Your task to perform on an android device: set the timer Image 0: 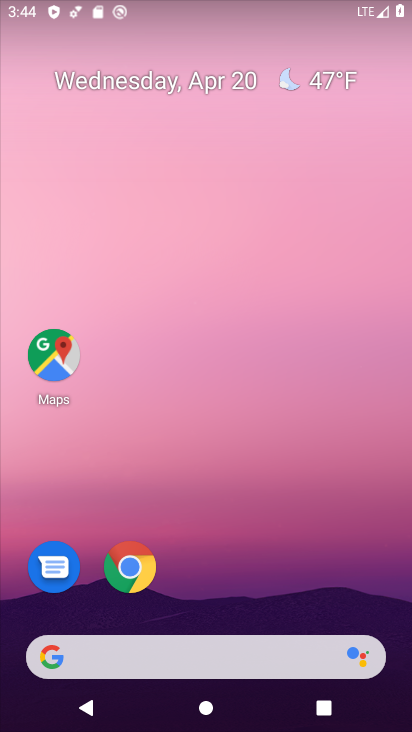
Step 0: click (240, 80)
Your task to perform on an android device: set the timer Image 1: 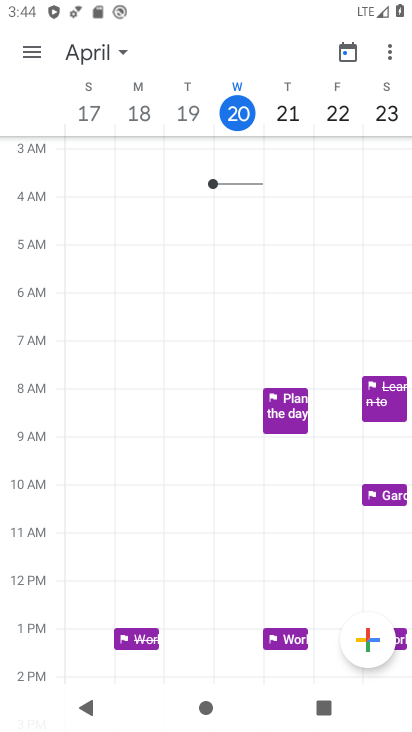
Step 1: press back button
Your task to perform on an android device: set the timer Image 2: 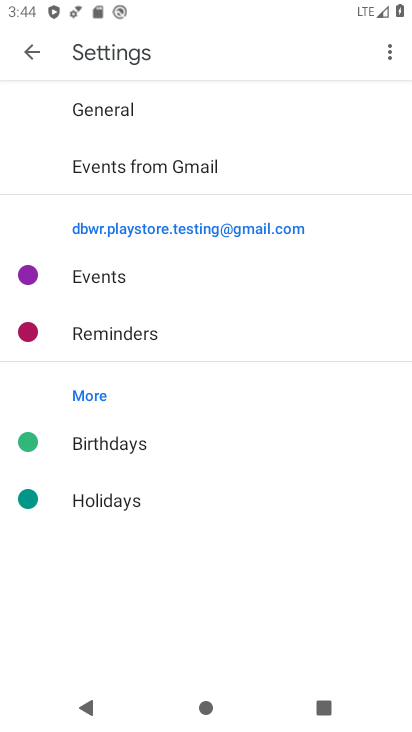
Step 2: press back button
Your task to perform on an android device: set the timer Image 3: 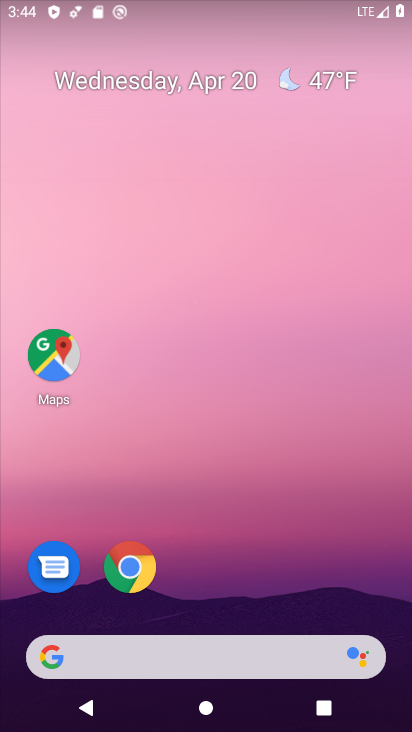
Step 3: drag from (363, 546) to (381, 481)
Your task to perform on an android device: set the timer Image 4: 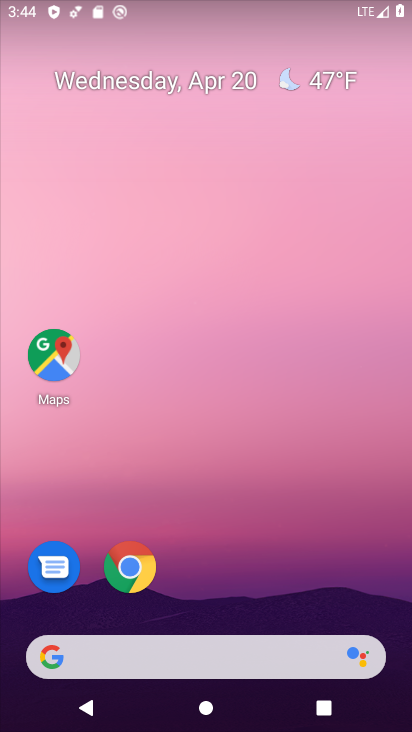
Step 4: drag from (306, 570) to (257, 30)
Your task to perform on an android device: set the timer Image 5: 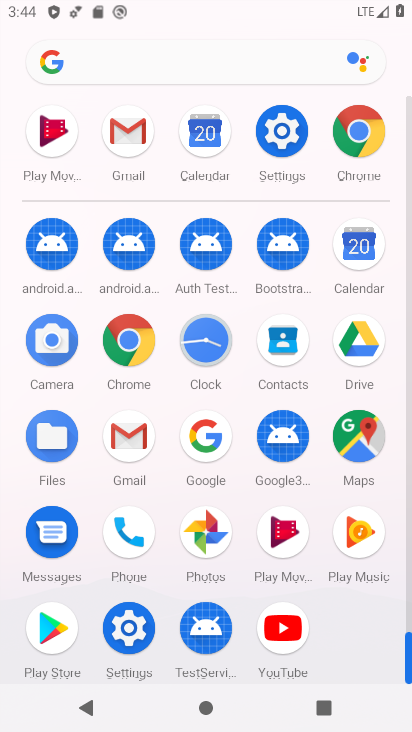
Step 5: click (206, 338)
Your task to perform on an android device: set the timer Image 6: 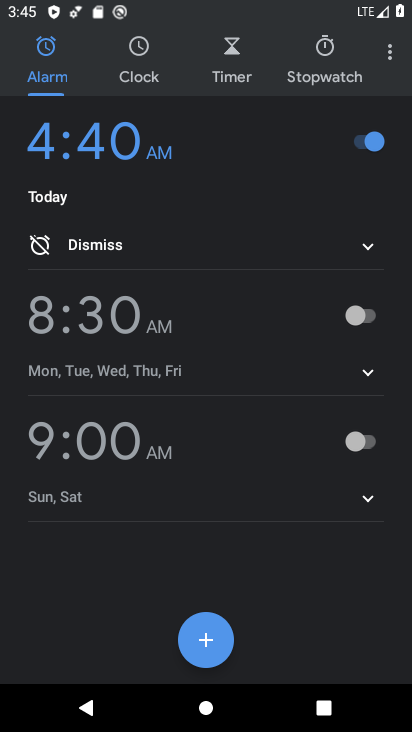
Step 6: click (240, 46)
Your task to perform on an android device: set the timer Image 7: 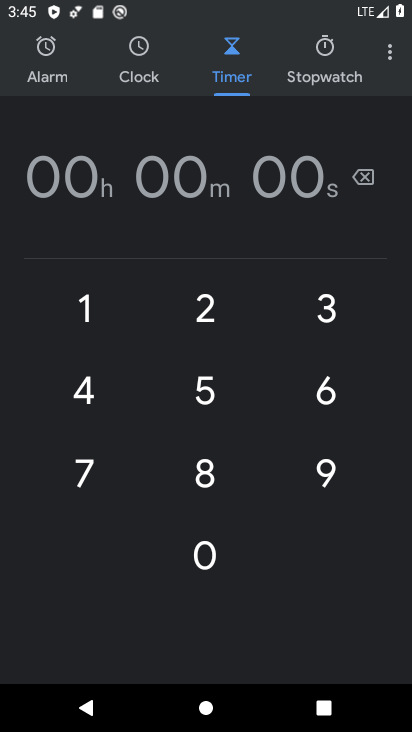
Step 7: click (224, 302)
Your task to perform on an android device: set the timer Image 8: 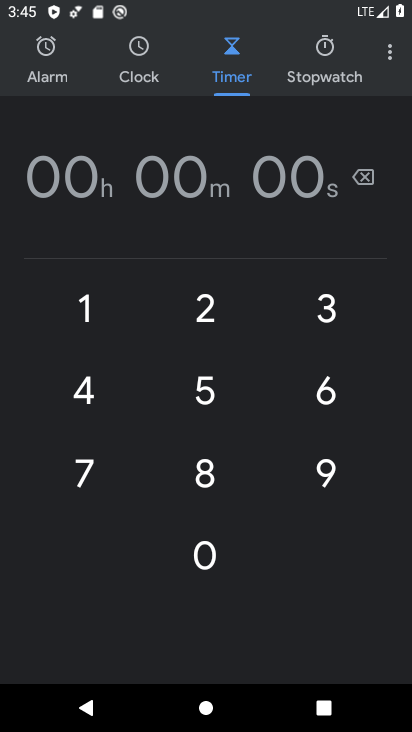
Step 8: drag from (71, 353) to (267, 395)
Your task to perform on an android device: set the timer Image 9: 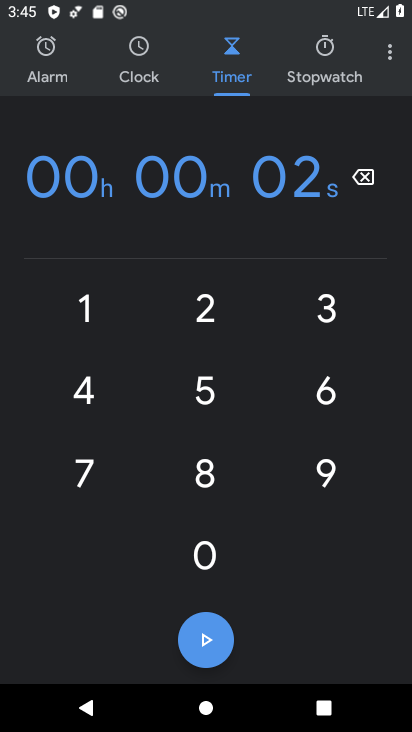
Step 9: click (227, 642)
Your task to perform on an android device: set the timer Image 10: 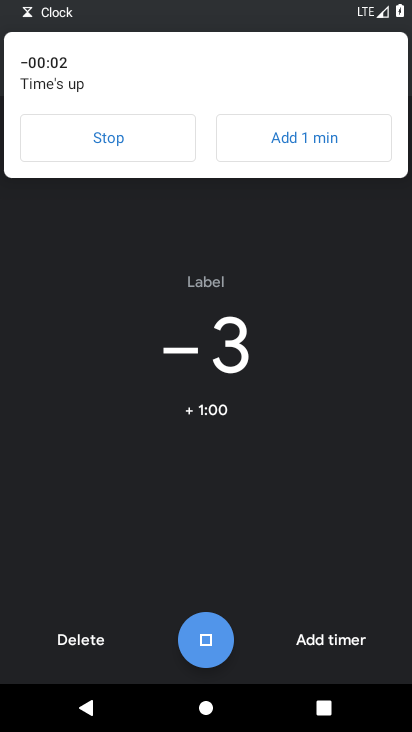
Step 10: click (151, 141)
Your task to perform on an android device: set the timer Image 11: 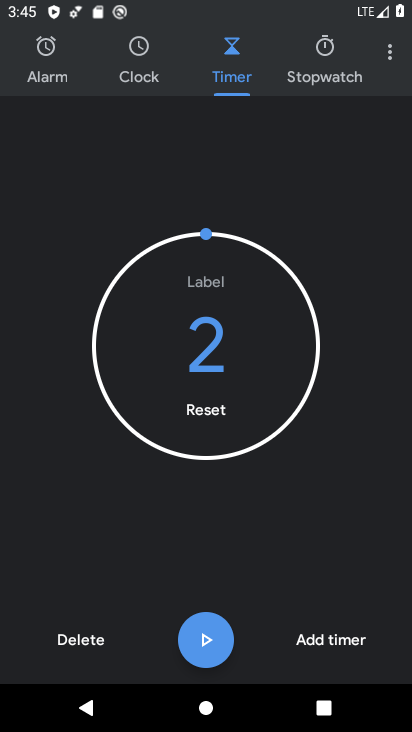
Step 11: task complete